Your task to perform on an android device: Go to sound settings Image 0: 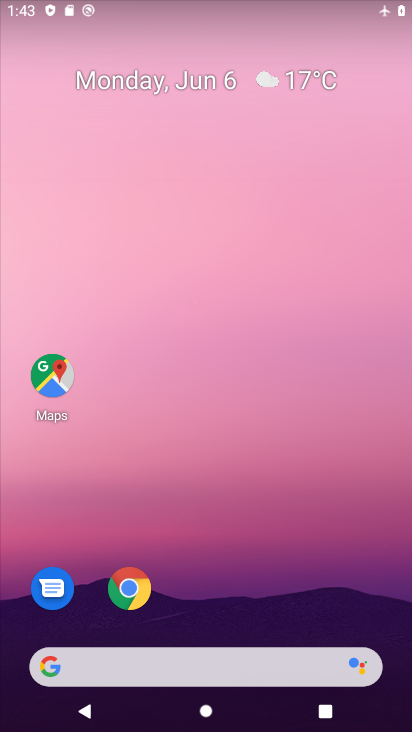
Step 0: drag from (200, 657) to (153, 60)
Your task to perform on an android device: Go to sound settings Image 1: 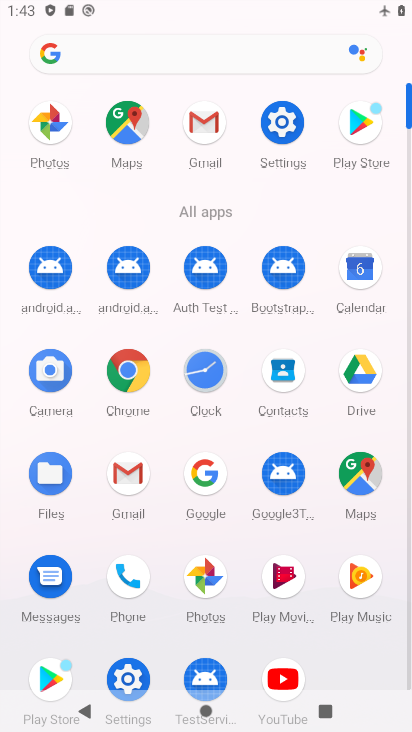
Step 1: click (273, 129)
Your task to perform on an android device: Go to sound settings Image 2: 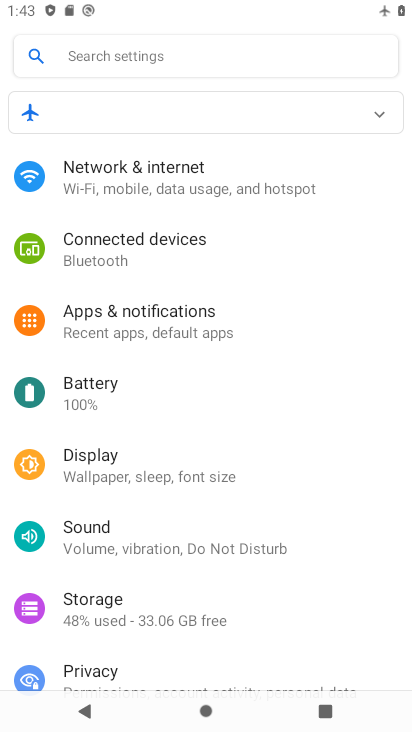
Step 2: click (113, 529)
Your task to perform on an android device: Go to sound settings Image 3: 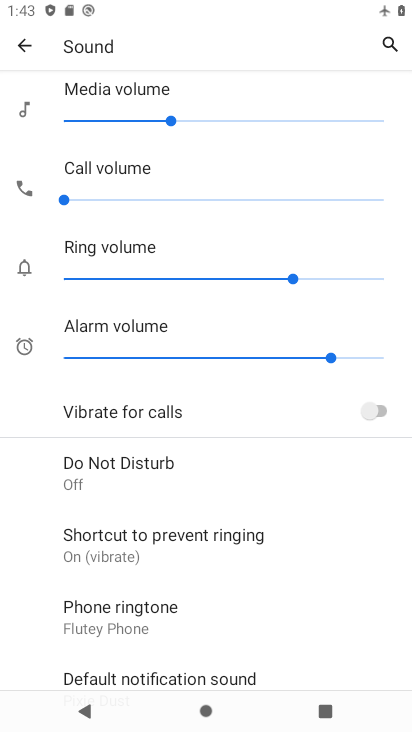
Step 3: task complete